Your task to perform on an android device: open a bookmark in the chrome app Image 0: 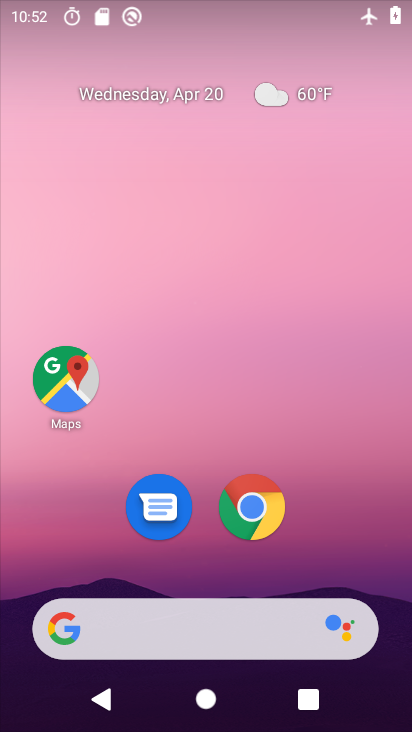
Step 0: click (255, 509)
Your task to perform on an android device: open a bookmark in the chrome app Image 1: 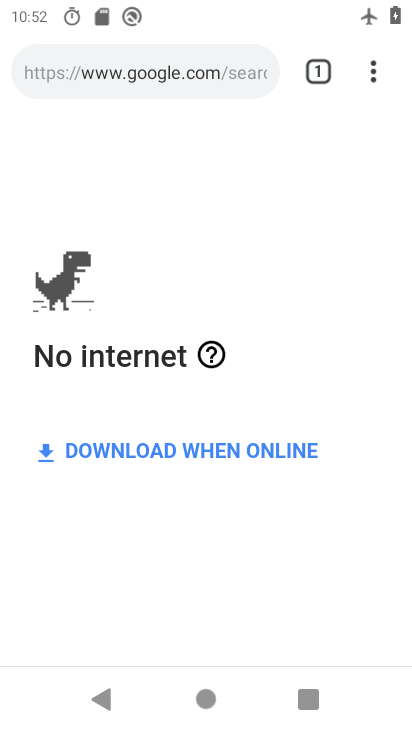
Step 1: click (374, 75)
Your task to perform on an android device: open a bookmark in the chrome app Image 2: 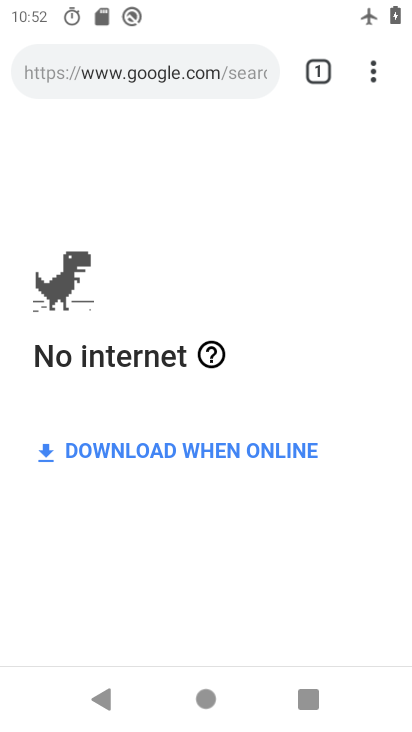
Step 2: task complete